Your task to perform on an android device: turn off data saver in the chrome app Image 0: 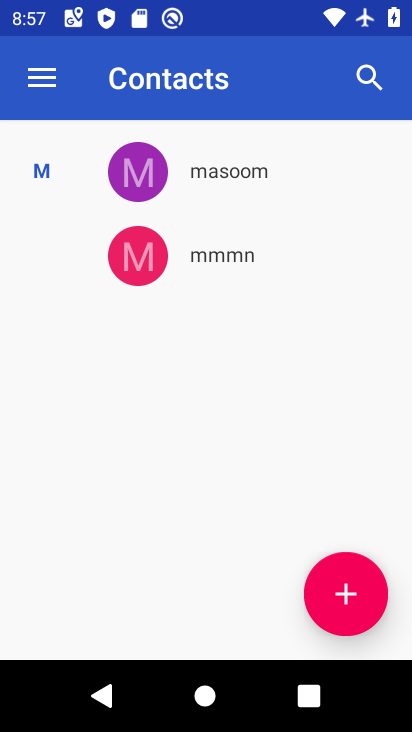
Step 0: press home button
Your task to perform on an android device: turn off data saver in the chrome app Image 1: 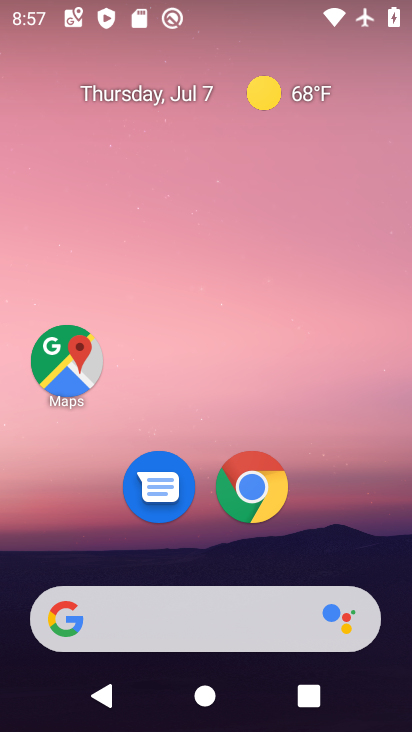
Step 1: drag from (228, 574) to (216, 91)
Your task to perform on an android device: turn off data saver in the chrome app Image 2: 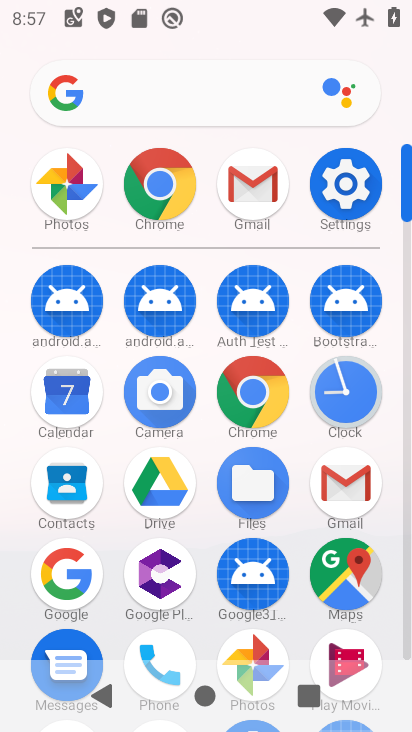
Step 2: click (148, 214)
Your task to perform on an android device: turn off data saver in the chrome app Image 3: 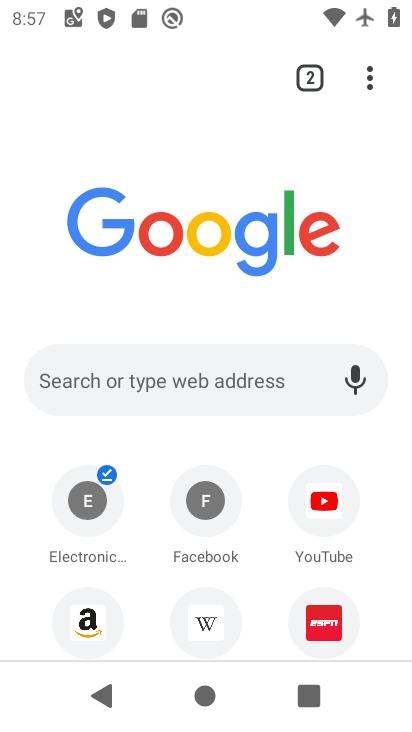
Step 3: click (376, 62)
Your task to perform on an android device: turn off data saver in the chrome app Image 4: 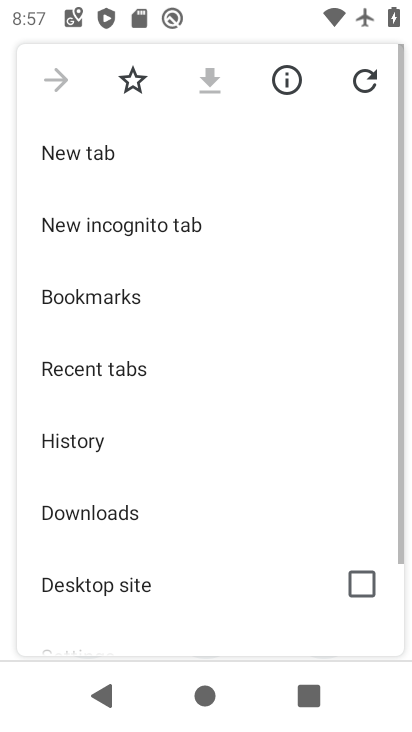
Step 4: drag from (211, 506) to (180, 184)
Your task to perform on an android device: turn off data saver in the chrome app Image 5: 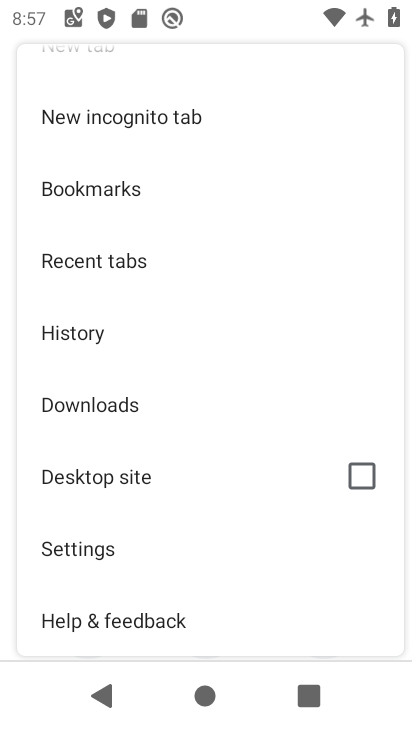
Step 5: click (95, 538)
Your task to perform on an android device: turn off data saver in the chrome app Image 6: 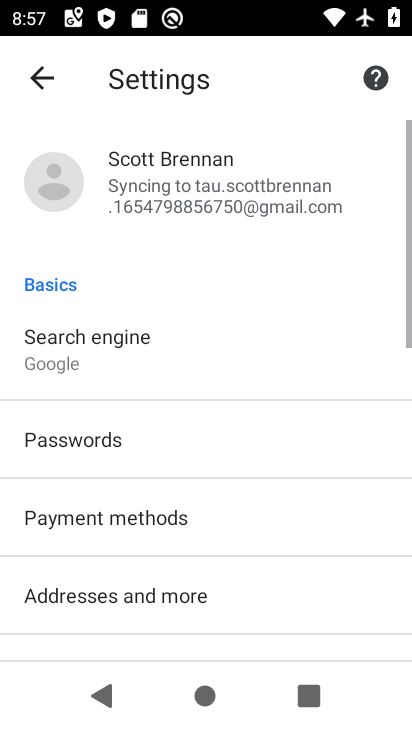
Step 6: drag from (95, 539) to (73, 308)
Your task to perform on an android device: turn off data saver in the chrome app Image 7: 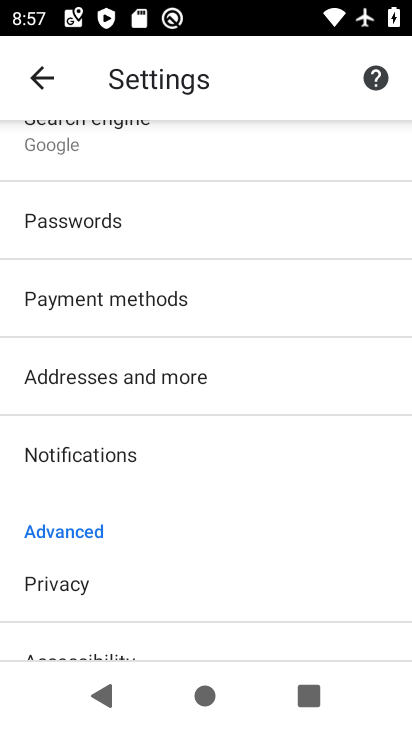
Step 7: drag from (162, 583) to (124, 240)
Your task to perform on an android device: turn off data saver in the chrome app Image 8: 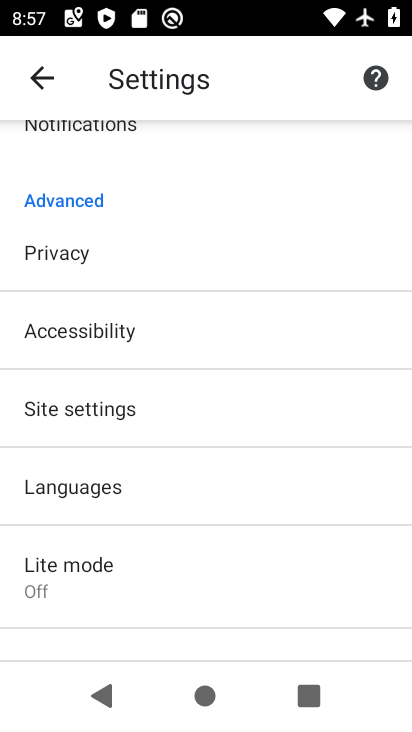
Step 8: click (103, 571)
Your task to perform on an android device: turn off data saver in the chrome app Image 9: 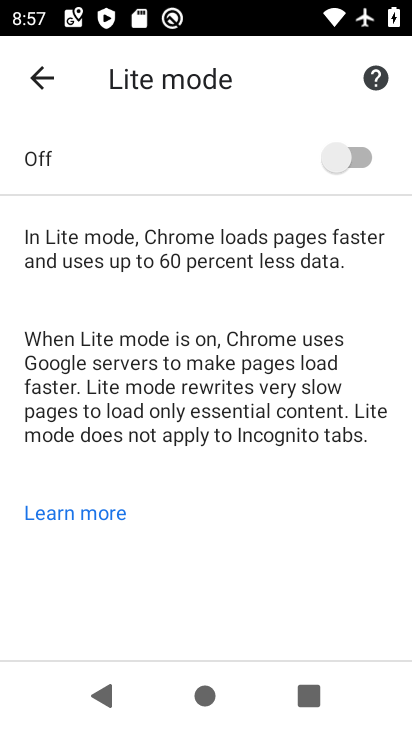
Step 9: task complete